Your task to perform on an android device: Check the weather Image 0: 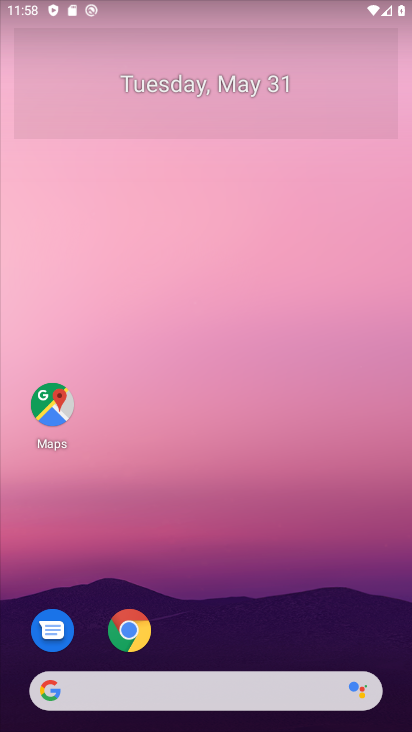
Step 0: drag from (283, 610) to (263, 229)
Your task to perform on an android device: Check the weather Image 1: 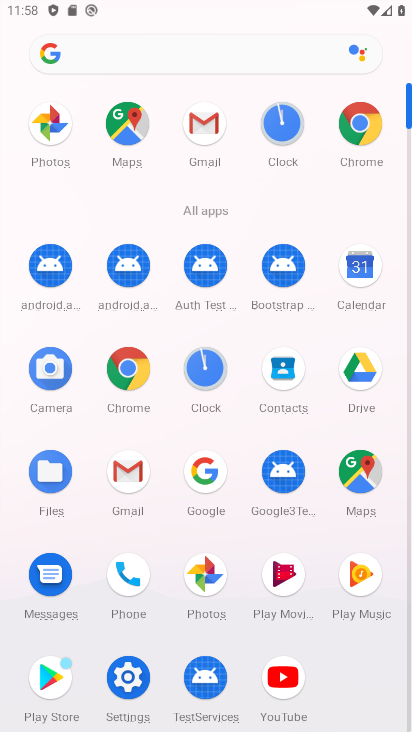
Step 1: click (124, 374)
Your task to perform on an android device: Check the weather Image 2: 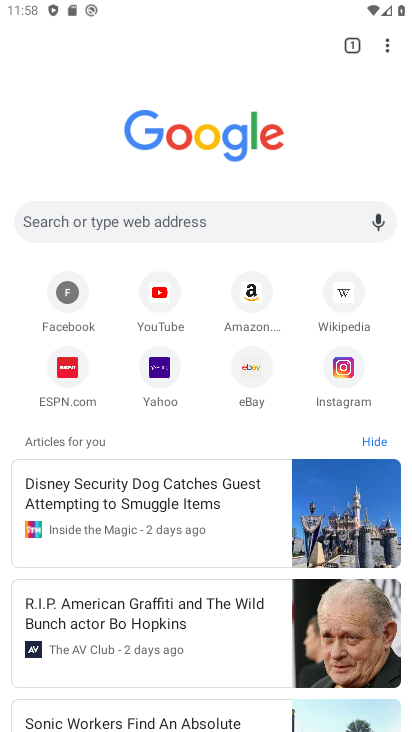
Step 2: click (205, 224)
Your task to perform on an android device: Check the weather Image 3: 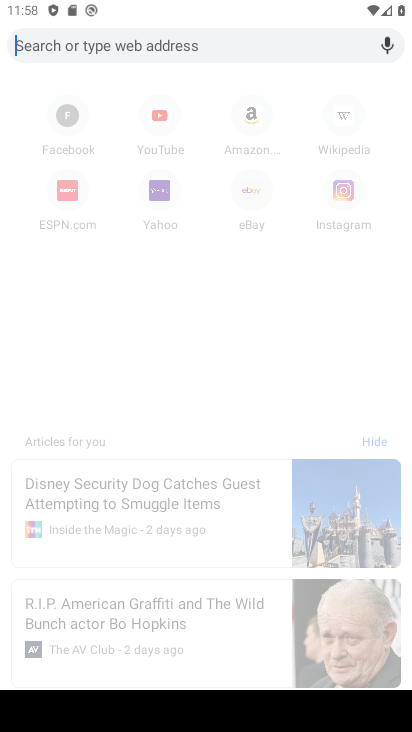
Step 3: type "Check the weather"
Your task to perform on an android device: Check the weather Image 4: 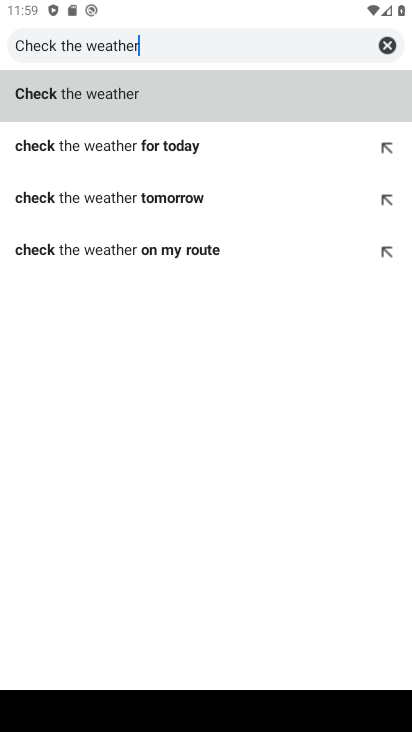
Step 4: click (92, 93)
Your task to perform on an android device: Check the weather Image 5: 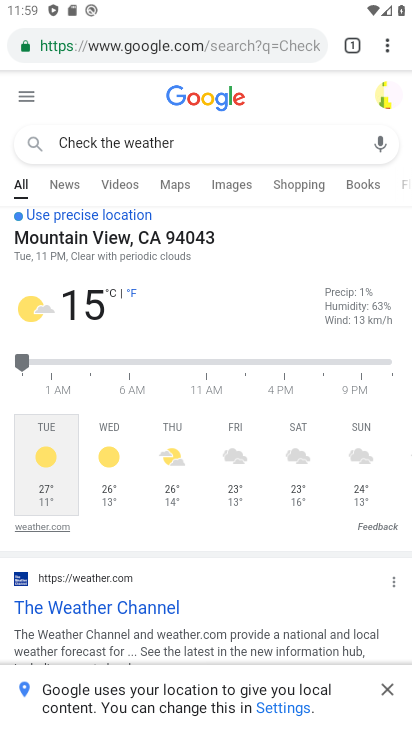
Step 5: task complete